Your task to perform on an android device: add a contact in the contacts app Image 0: 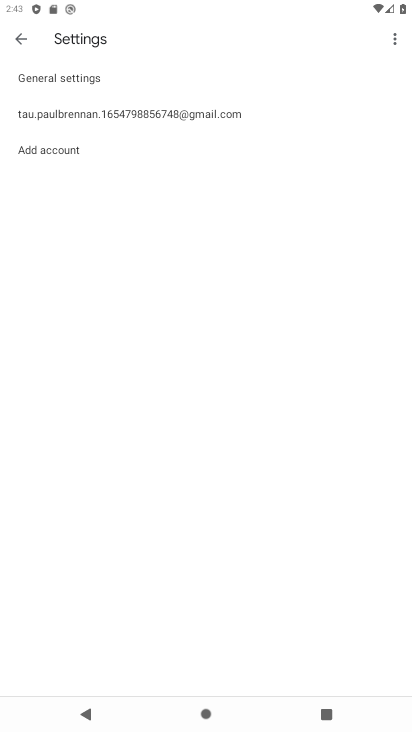
Step 0: press home button
Your task to perform on an android device: add a contact in the contacts app Image 1: 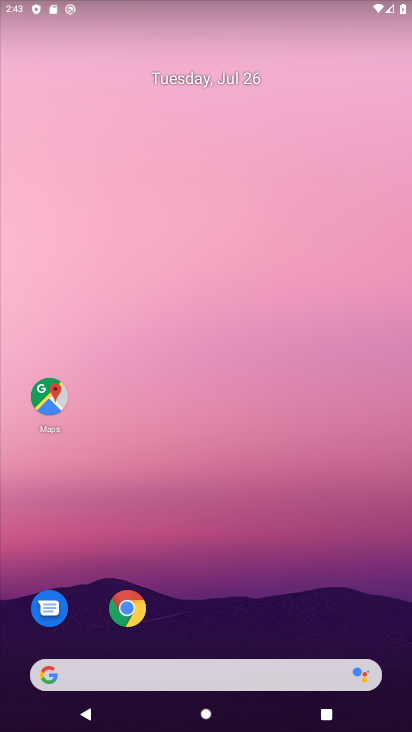
Step 1: drag from (248, 641) to (318, 2)
Your task to perform on an android device: add a contact in the contacts app Image 2: 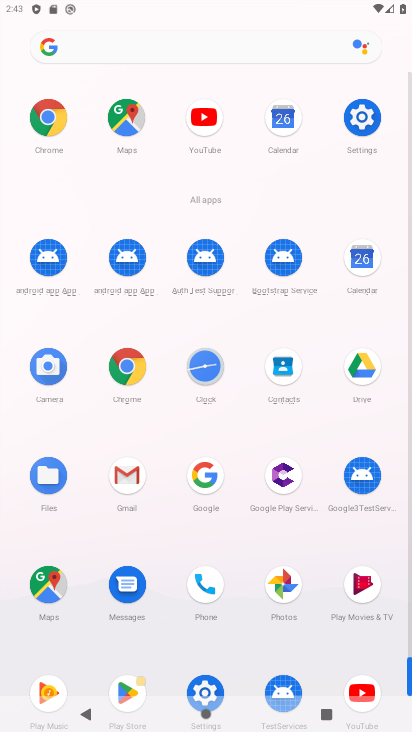
Step 2: click (289, 382)
Your task to perform on an android device: add a contact in the contacts app Image 3: 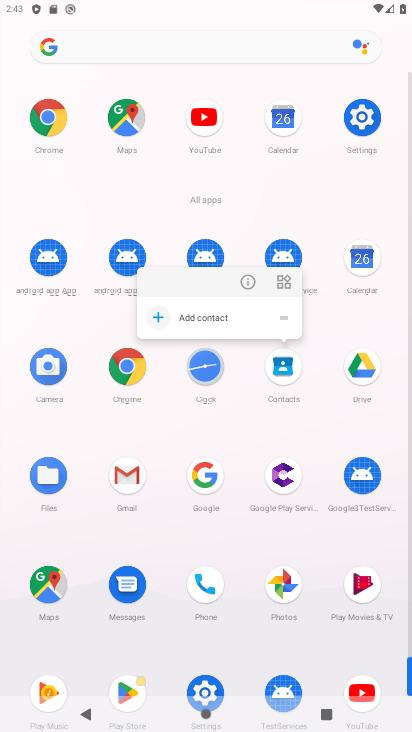
Step 3: click (289, 386)
Your task to perform on an android device: add a contact in the contacts app Image 4: 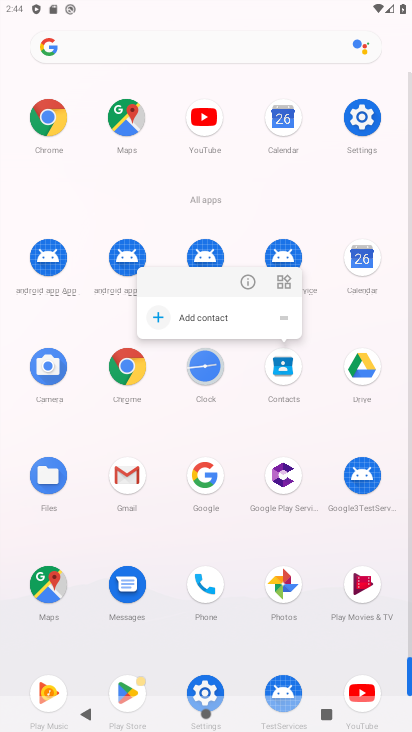
Step 4: click (285, 387)
Your task to perform on an android device: add a contact in the contacts app Image 5: 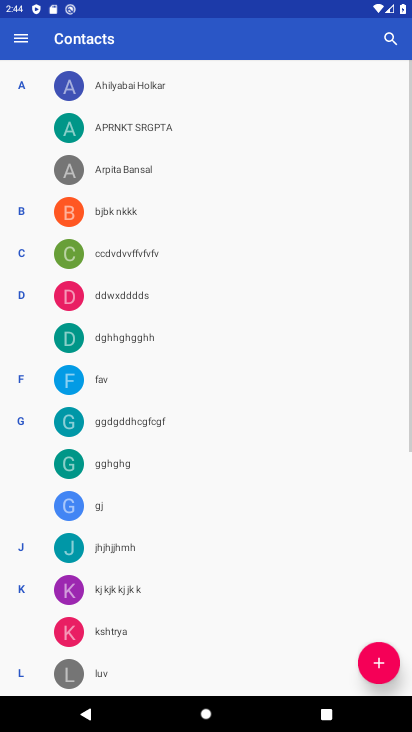
Step 5: click (381, 653)
Your task to perform on an android device: add a contact in the contacts app Image 6: 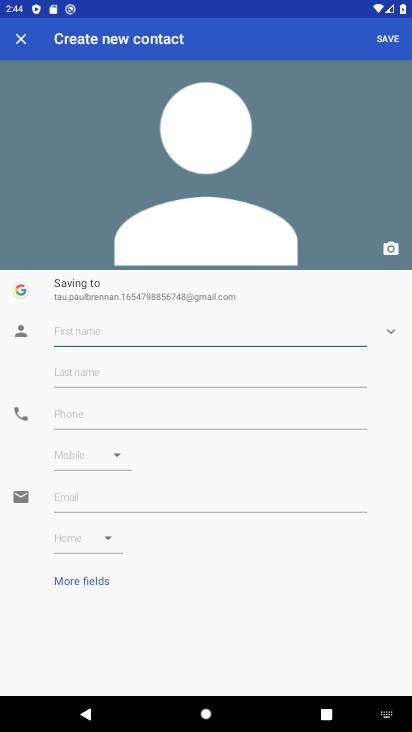
Step 6: type "flakes"
Your task to perform on an android device: add a contact in the contacts app Image 7: 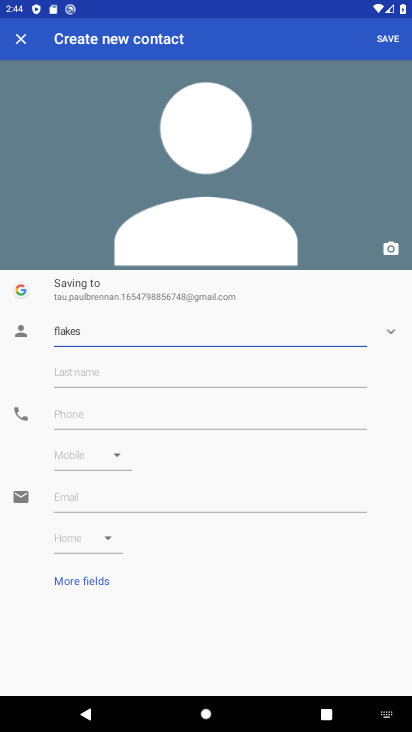
Step 7: click (383, 31)
Your task to perform on an android device: add a contact in the contacts app Image 8: 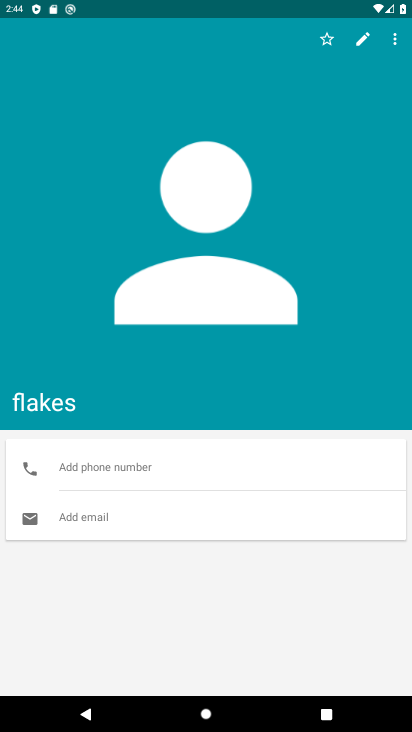
Step 8: task complete